Your task to perform on an android device: Add lg ultragear to the cart on newegg.com Image 0: 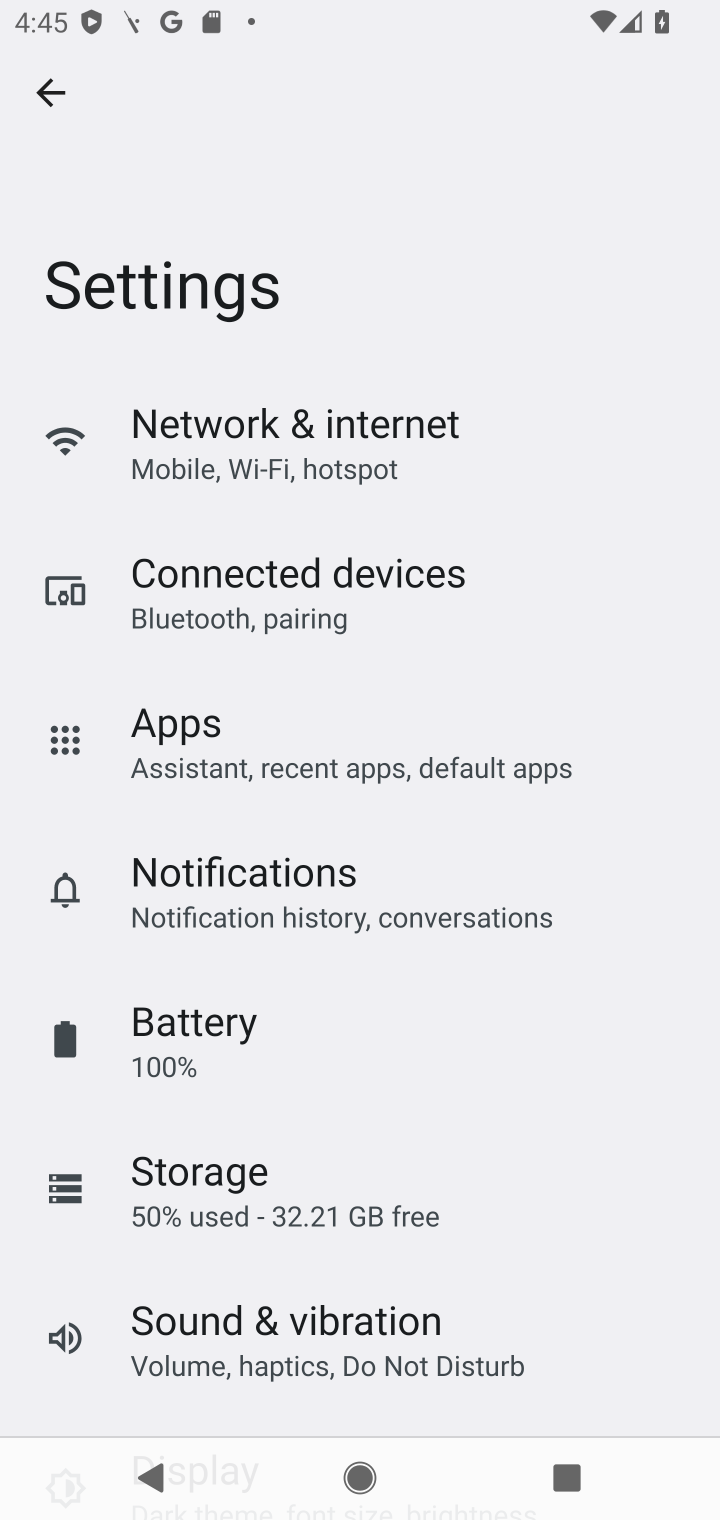
Step 0: press home button
Your task to perform on an android device: Add lg ultragear to the cart on newegg.com Image 1: 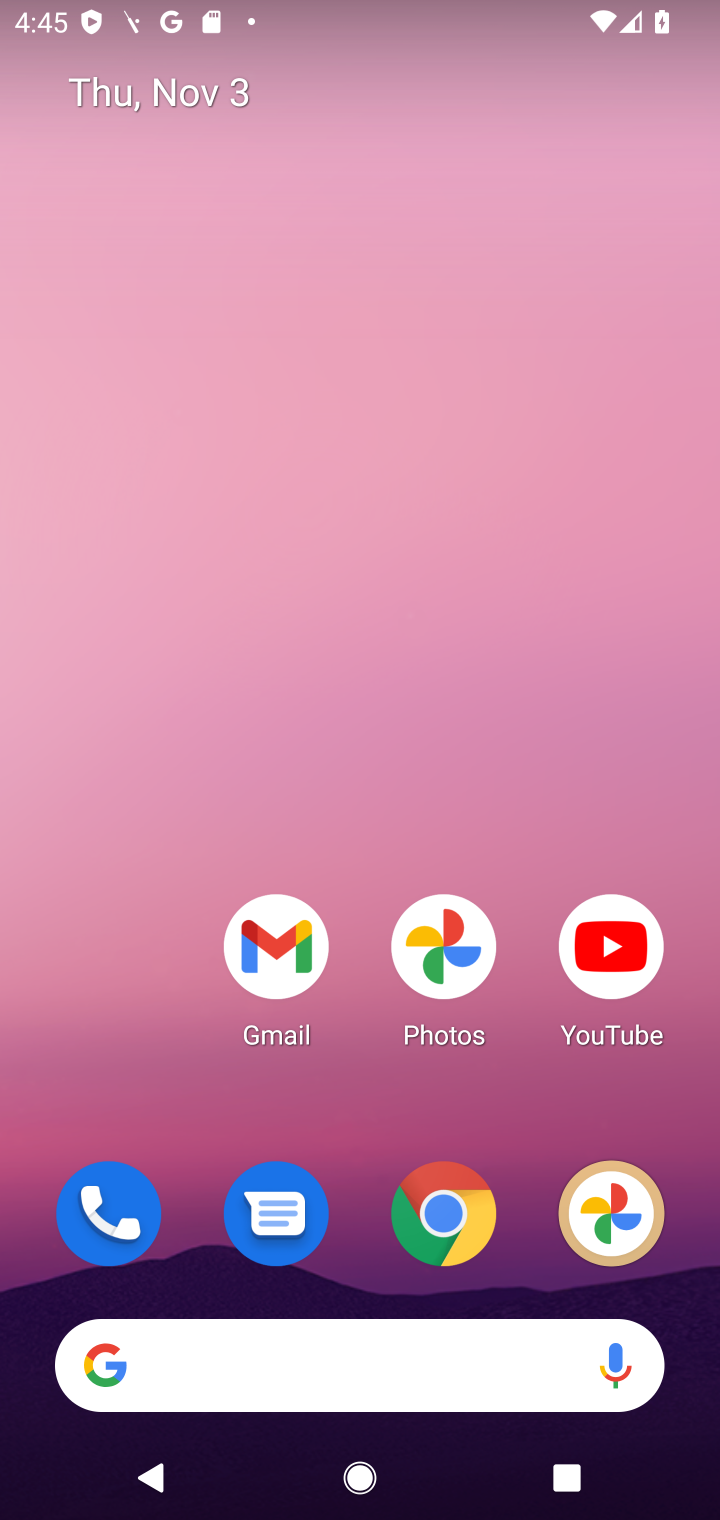
Step 1: click (443, 1236)
Your task to perform on an android device: Add lg ultragear to the cart on newegg.com Image 2: 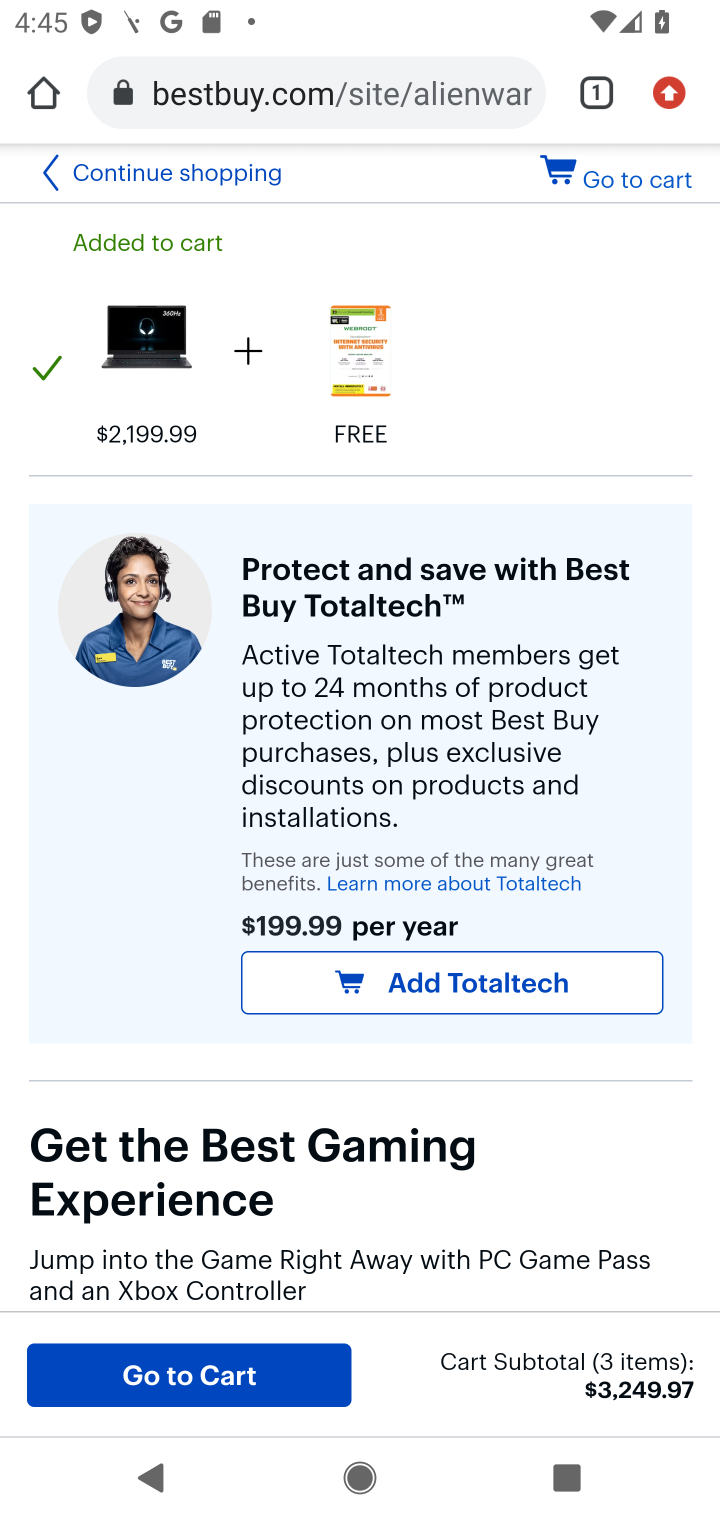
Step 2: click (251, 100)
Your task to perform on an android device: Add lg ultragear to the cart on newegg.com Image 3: 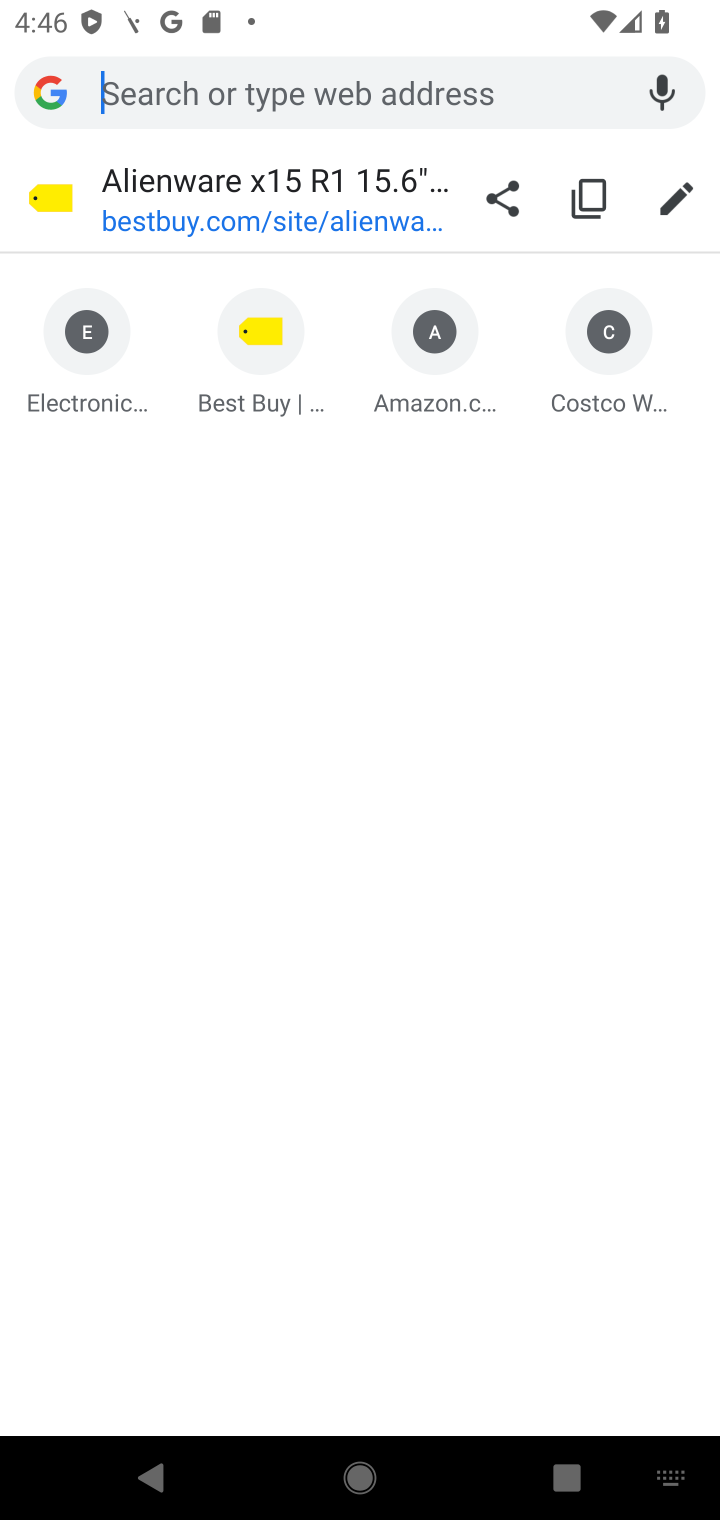
Step 3: type "newegg.com"
Your task to perform on an android device: Add lg ultragear to the cart on newegg.com Image 4: 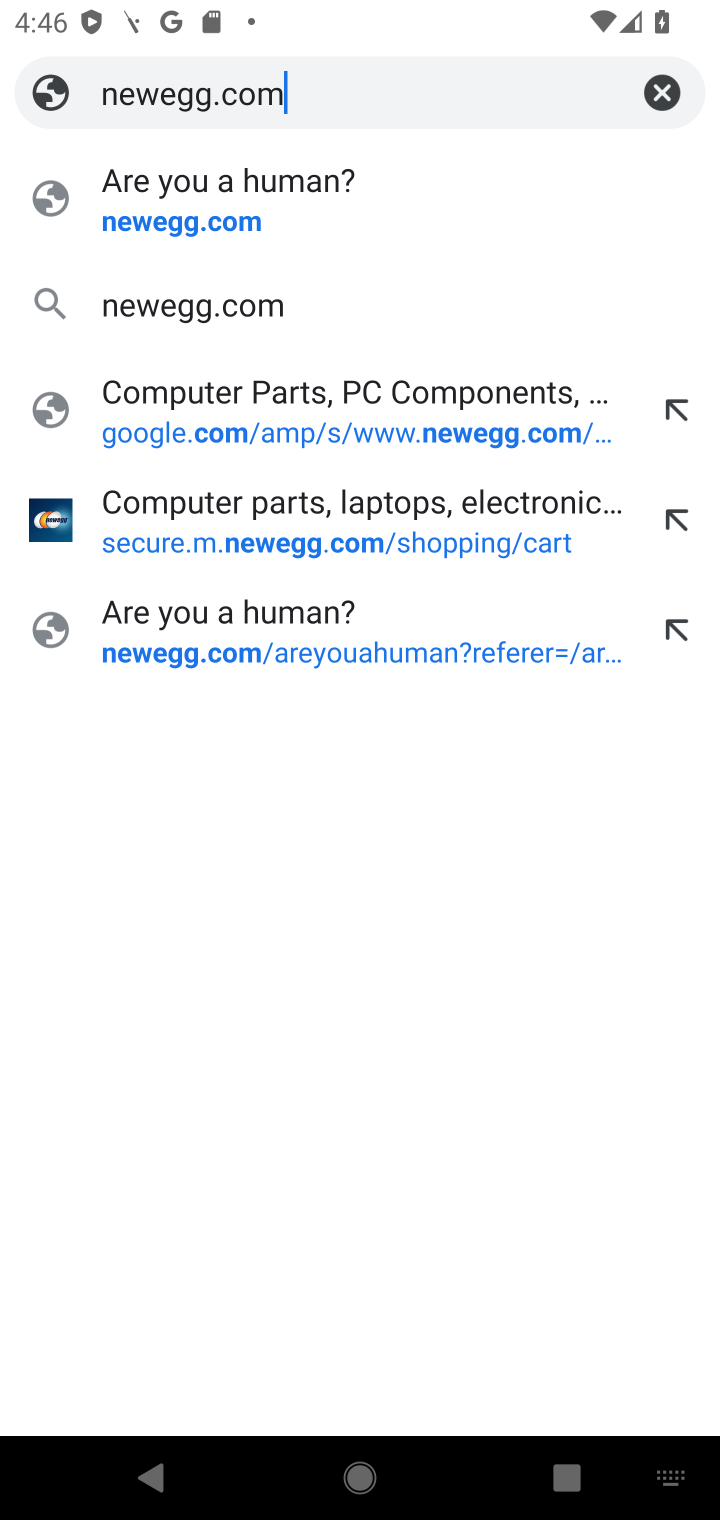
Step 4: click (176, 313)
Your task to perform on an android device: Add lg ultragear to the cart on newegg.com Image 5: 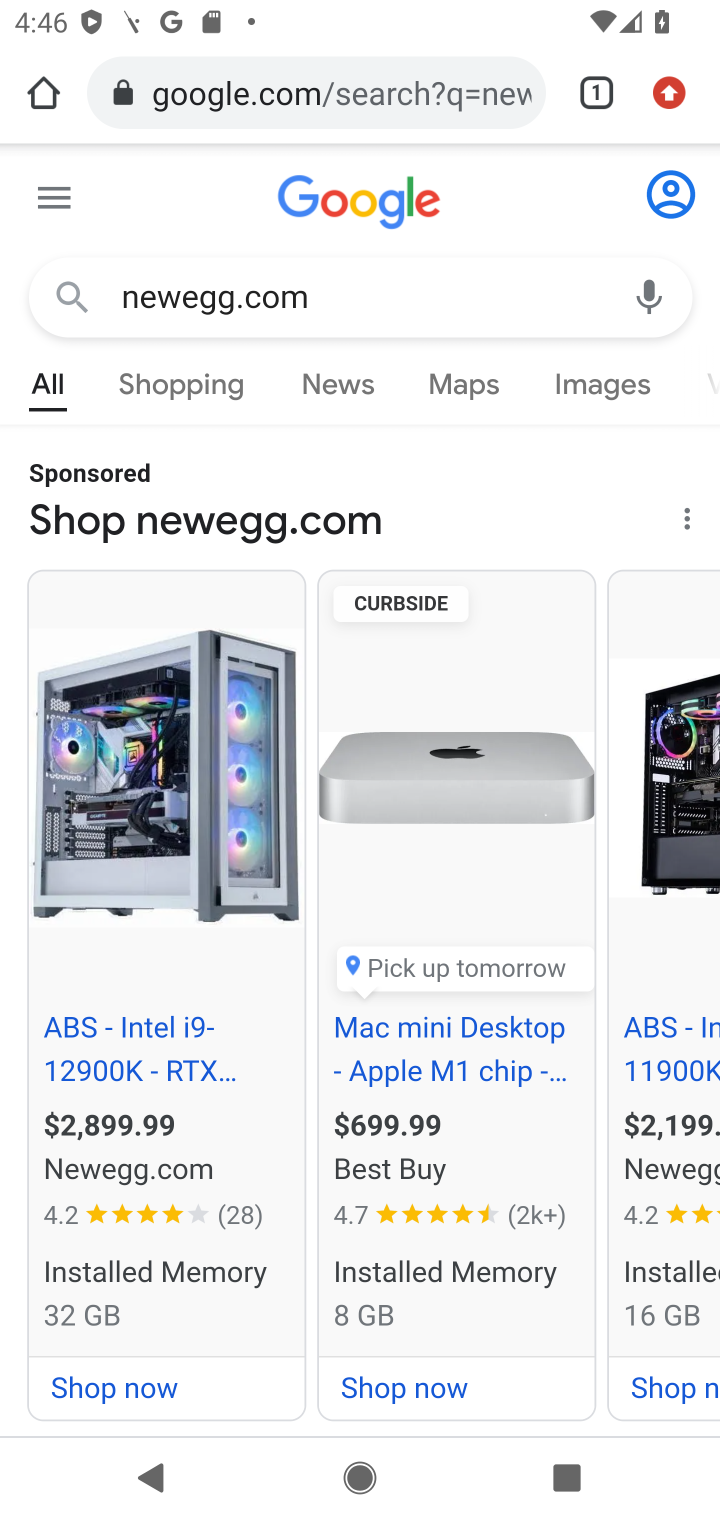
Step 5: drag from (528, 1052) to (485, 276)
Your task to perform on an android device: Add lg ultragear to the cart on newegg.com Image 6: 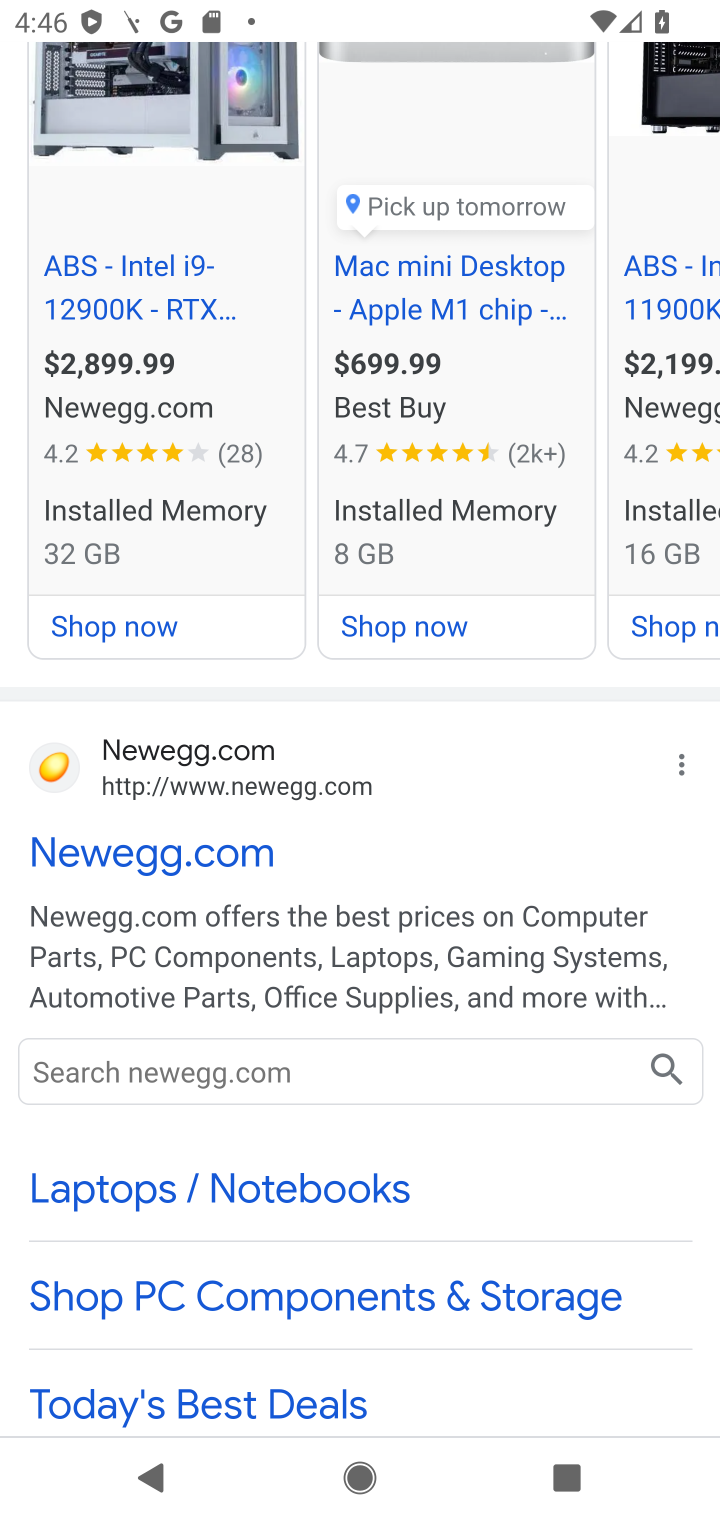
Step 6: click (175, 866)
Your task to perform on an android device: Add lg ultragear to the cart on newegg.com Image 7: 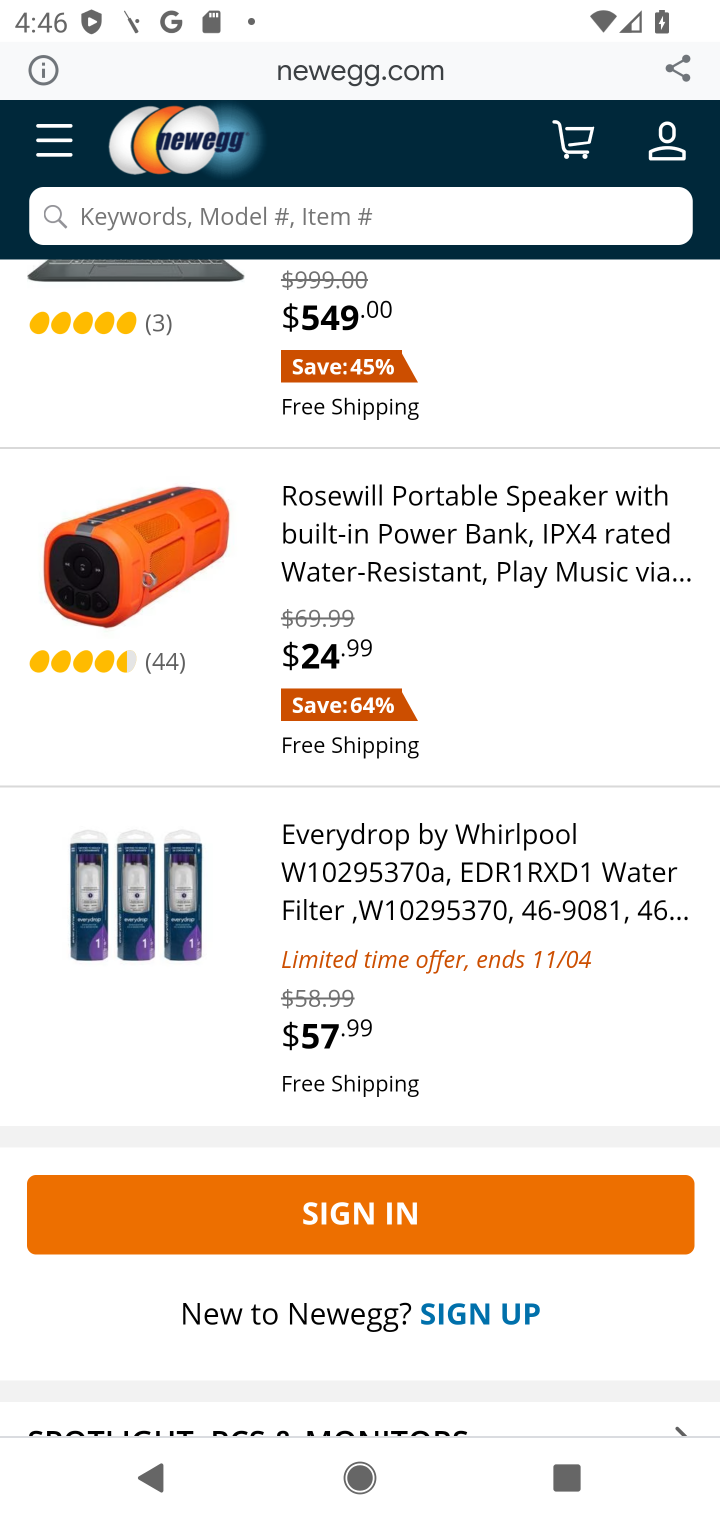
Step 7: click (248, 211)
Your task to perform on an android device: Add lg ultragear to the cart on newegg.com Image 8: 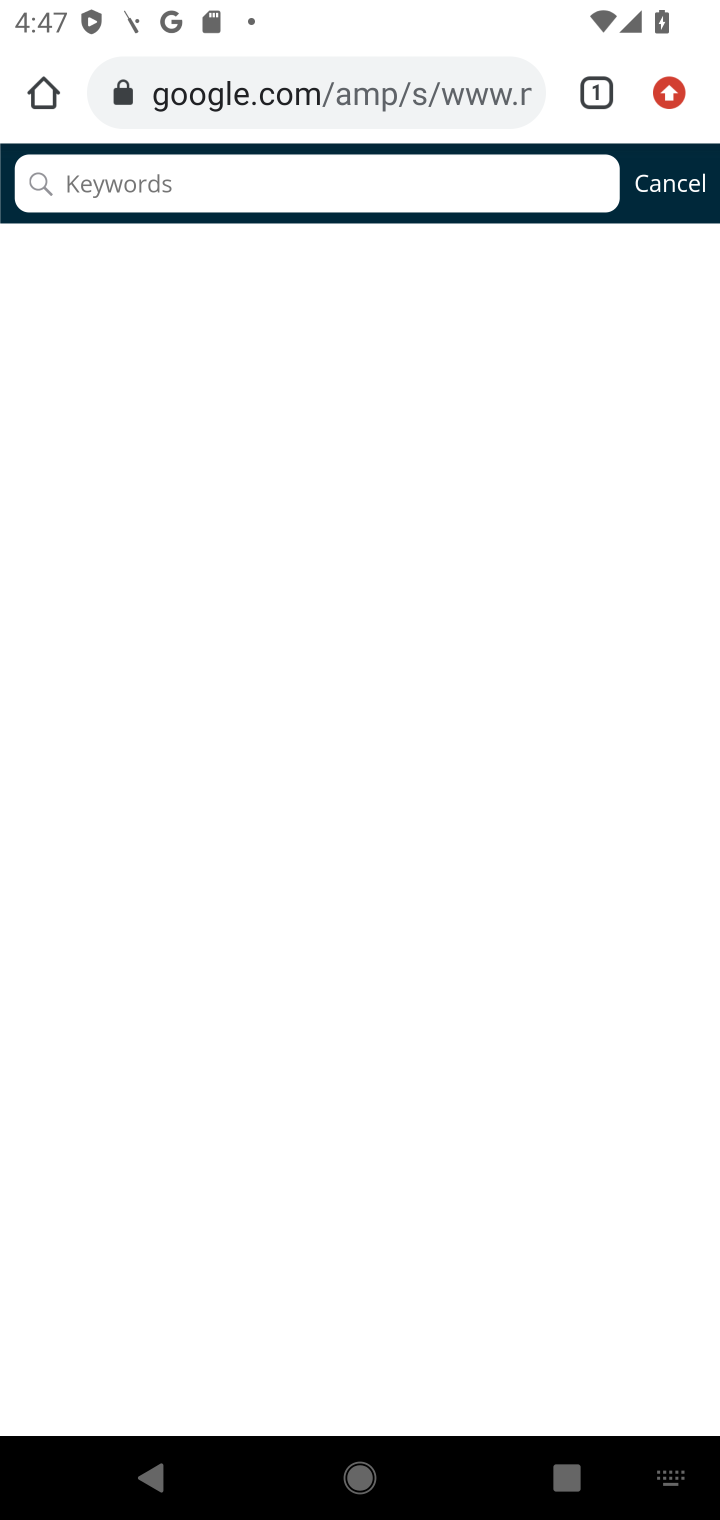
Step 8: type "lg ultragear"
Your task to perform on an android device: Add lg ultragear to the cart on newegg.com Image 9: 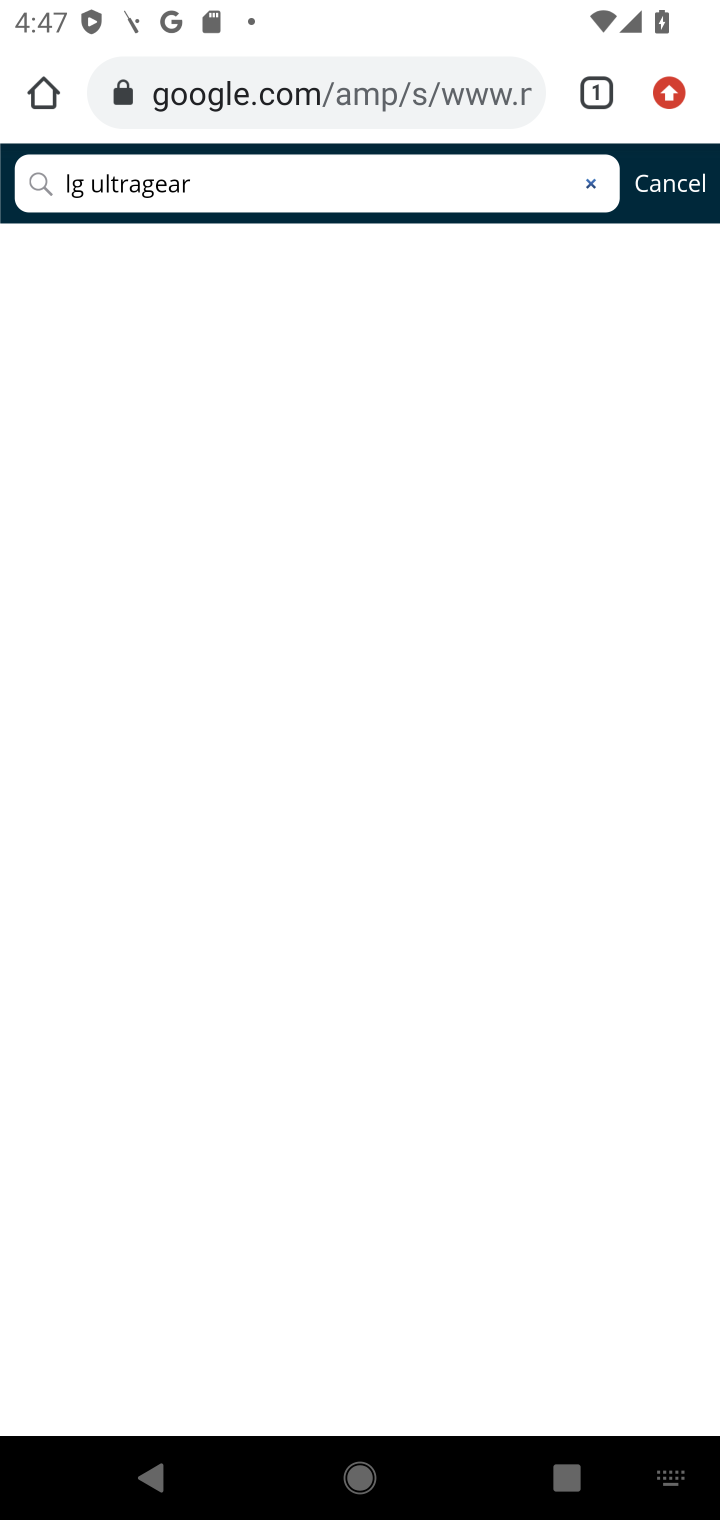
Step 9: click (41, 194)
Your task to perform on an android device: Add lg ultragear to the cart on newegg.com Image 10: 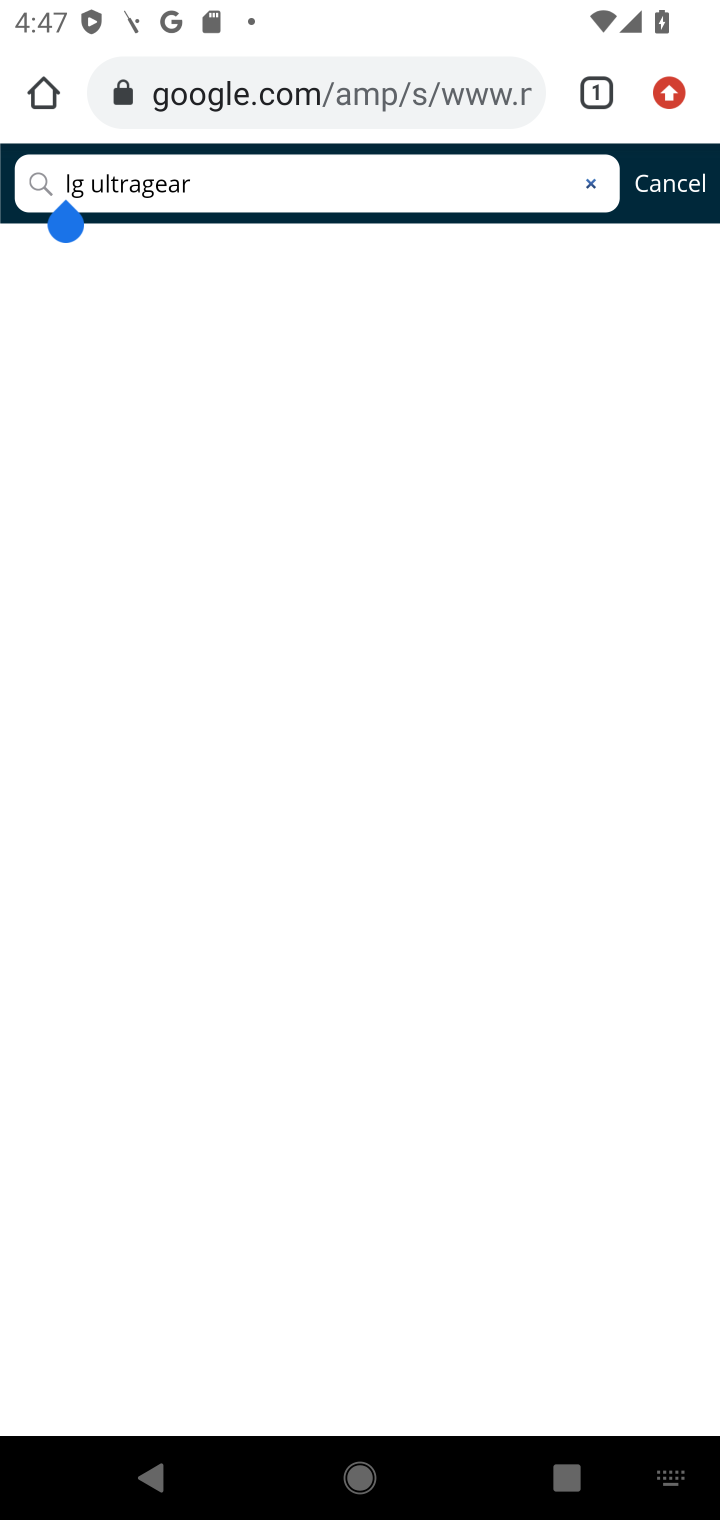
Step 10: task complete